Your task to perform on an android device: turn pop-ups on in chrome Image 0: 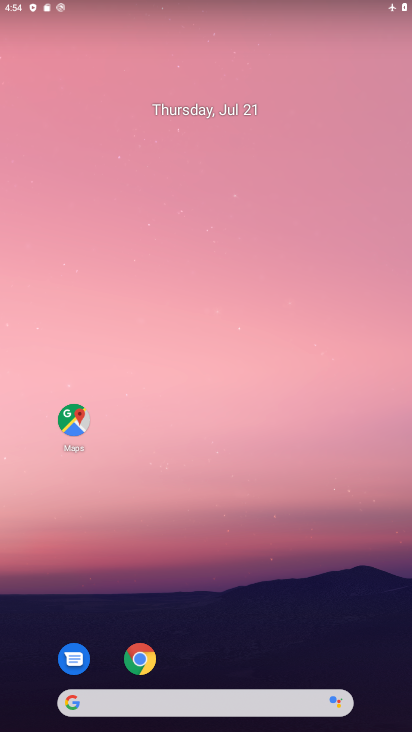
Step 0: click (140, 659)
Your task to perform on an android device: turn pop-ups on in chrome Image 1: 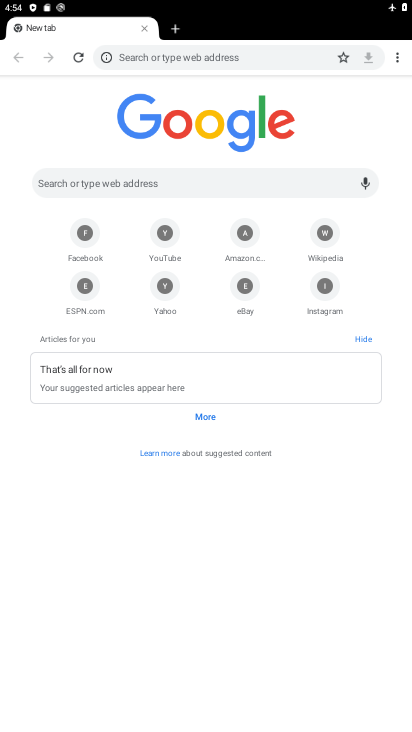
Step 1: click (396, 62)
Your task to perform on an android device: turn pop-ups on in chrome Image 2: 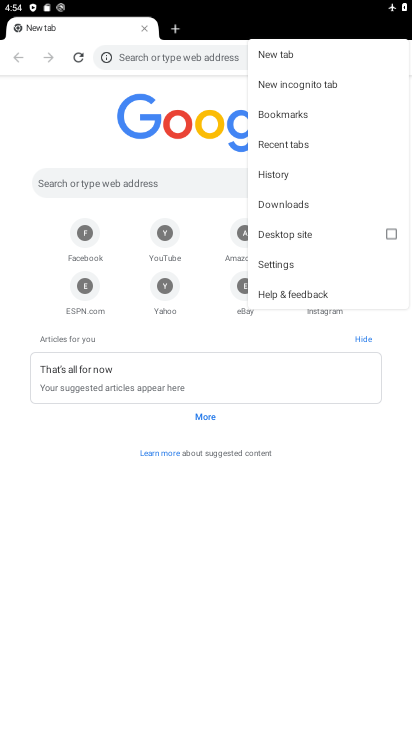
Step 2: click (276, 257)
Your task to perform on an android device: turn pop-ups on in chrome Image 3: 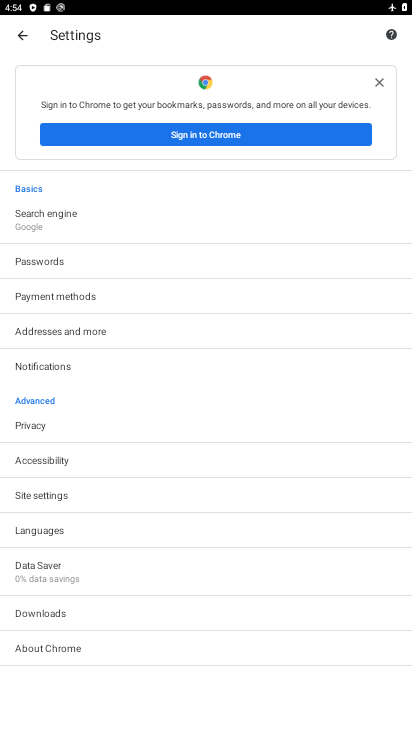
Step 3: click (50, 496)
Your task to perform on an android device: turn pop-ups on in chrome Image 4: 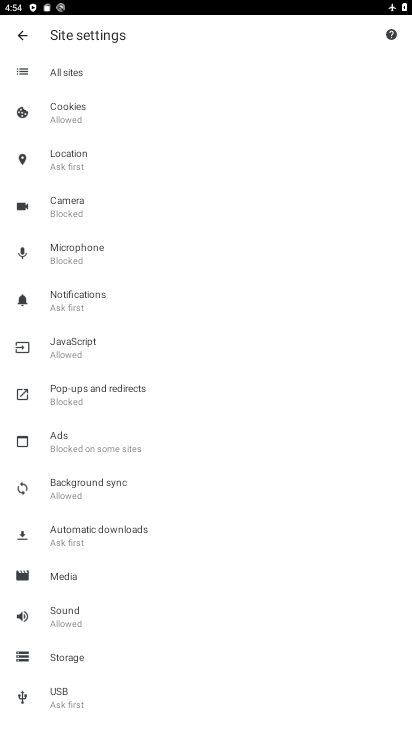
Step 4: click (72, 395)
Your task to perform on an android device: turn pop-ups on in chrome Image 5: 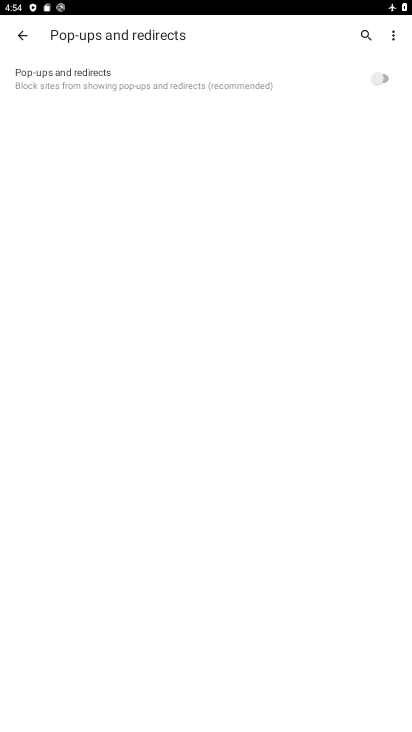
Step 5: click (384, 77)
Your task to perform on an android device: turn pop-ups on in chrome Image 6: 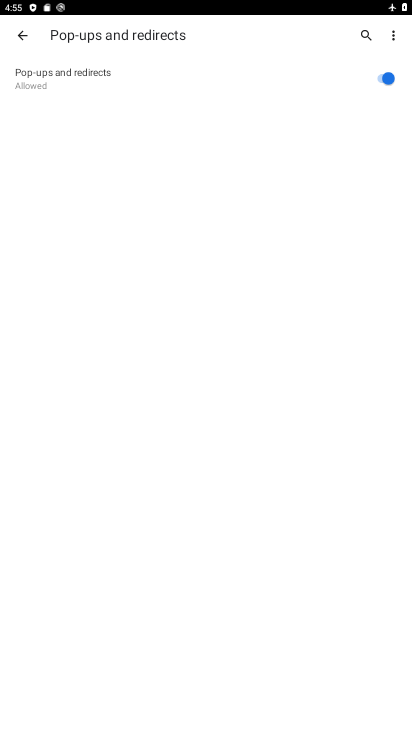
Step 6: task complete